Your task to perform on an android device: change the clock display to show seconds Image 0: 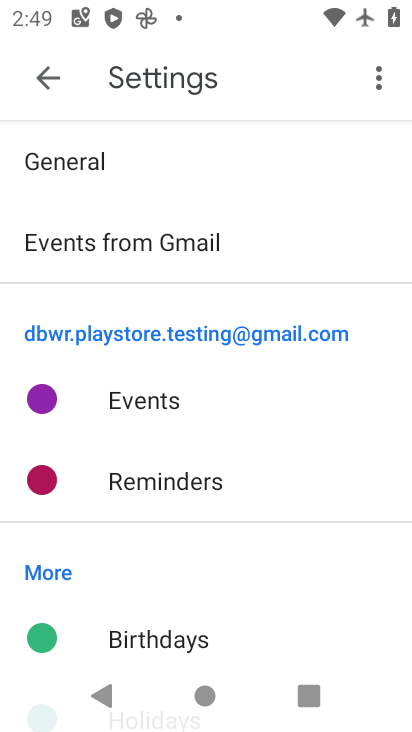
Step 0: press home button
Your task to perform on an android device: change the clock display to show seconds Image 1: 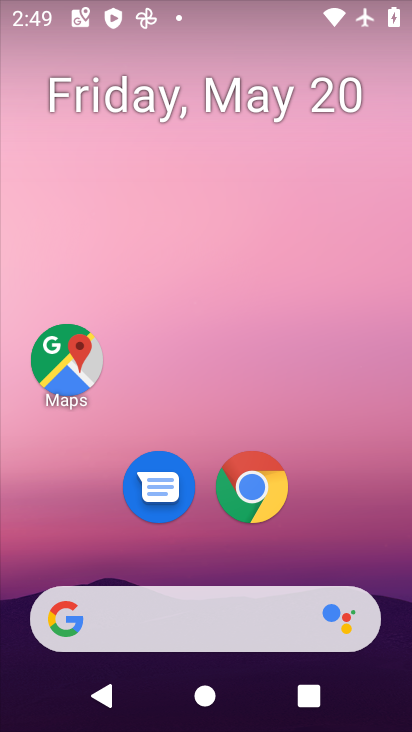
Step 1: drag from (387, 473) to (348, 32)
Your task to perform on an android device: change the clock display to show seconds Image 2: 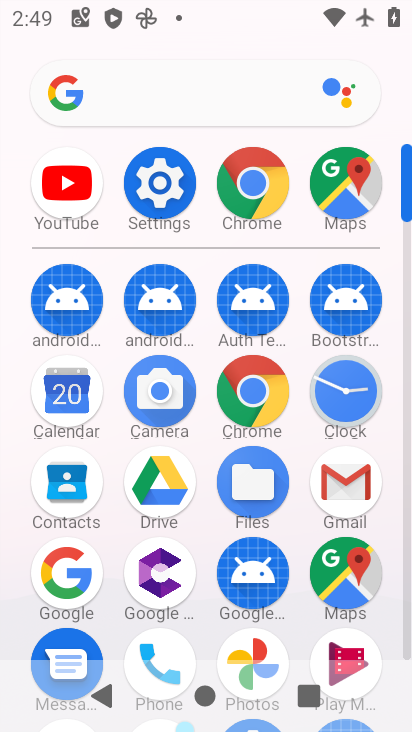
Step 2: click (354, 395)
Your task to perform on an android device: change the clock display to show seconds Image 3: 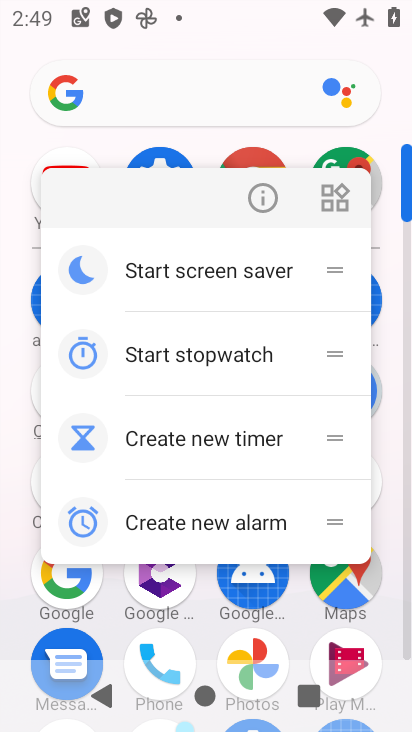
Step 3: click (382, 386)
Your task to perform on an android device: change the clock display to show seconds Image 4: 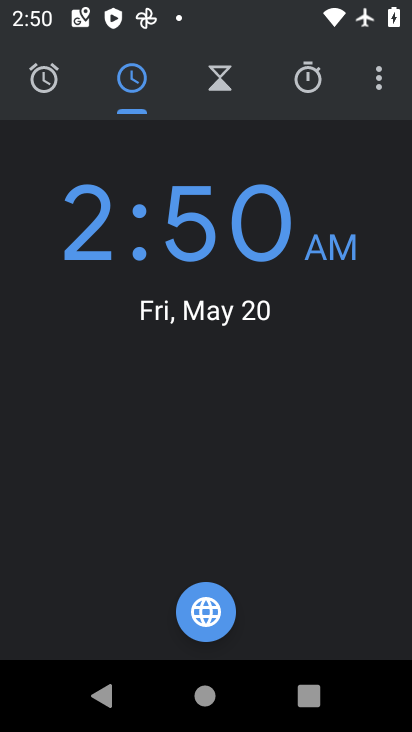
Step 4: click (382, 87)
Your task to perform on an android device: change the clock display to show seconds Image 5: 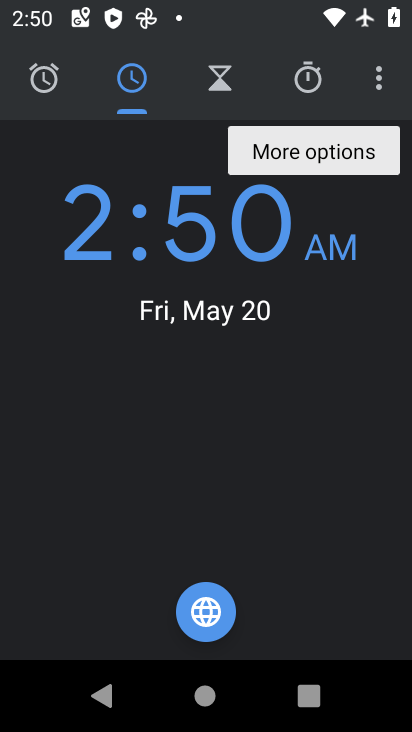
Step 5: click (382, 87)
Your task to perform on an android device: change the clock display to show seconds Image 6: 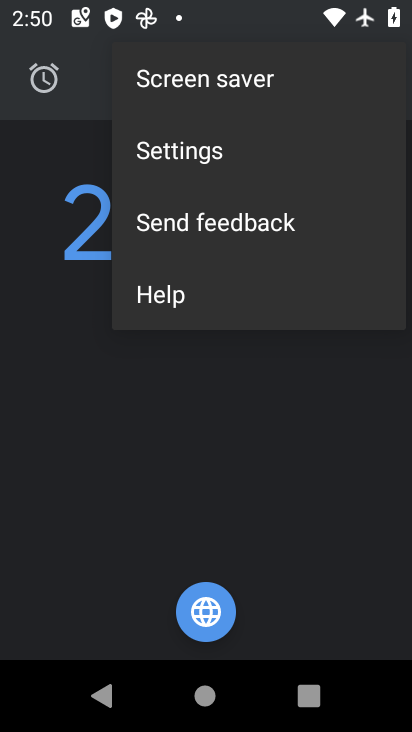
Step 6: click (211, 138)
Your task to perform on an android device: change the clock display to show seconds Image 7: 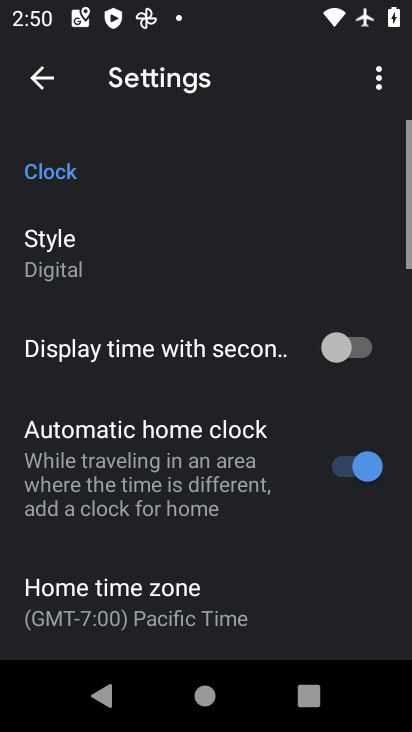
Step 7: click (84, 265)
Your task to perform on an android device: change the clock display to show seconds Image 8: 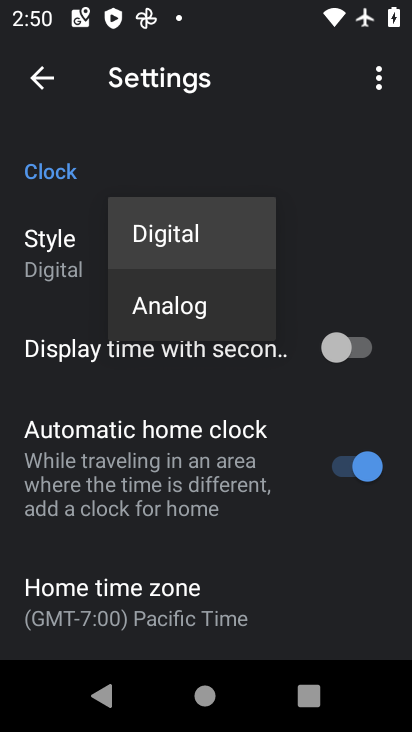
Step 8: click (362, 283)
Your task to perform on an android device: change the clock display to show seconds Image 9: 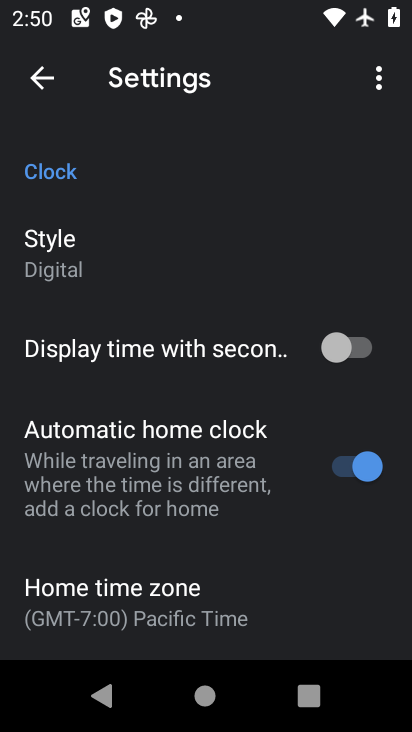
Step 9: click (353, 337)
Your task to perform on an android device: change the clock display to show seconds Image 10: 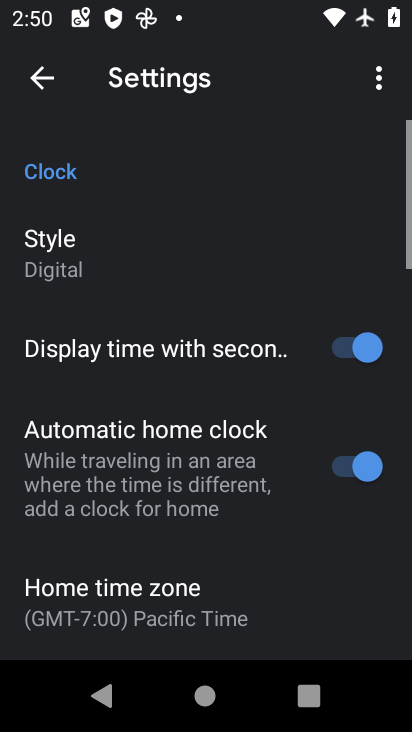
Step 10: task complete